Your task to perform on an android device: Open CNN.com Image 0: 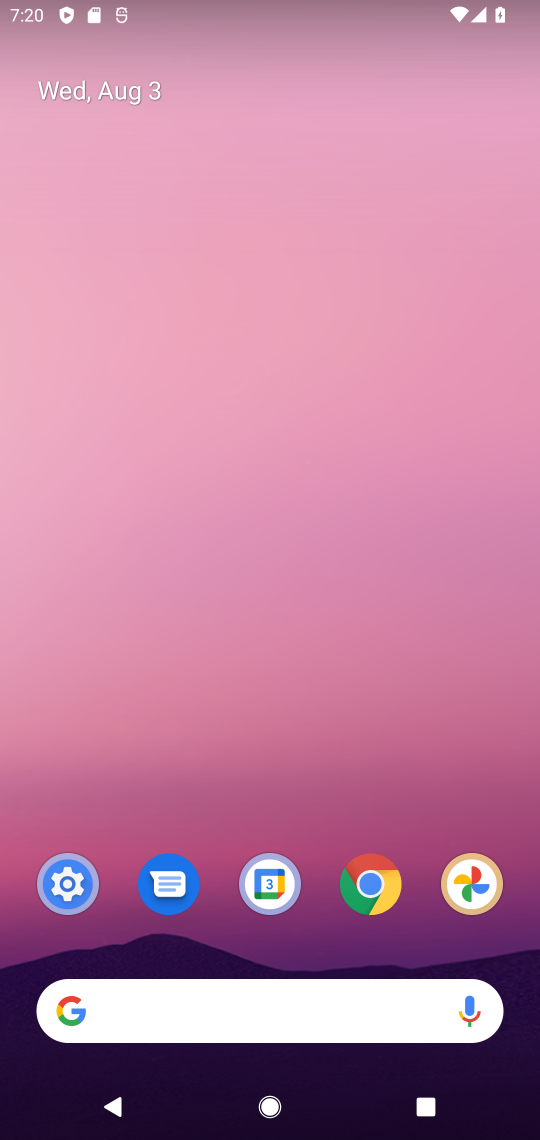
Step 0: drag from (315, 1134) to (405, 768)
Your task to perform on an android device: Open CNN.com Image 1: 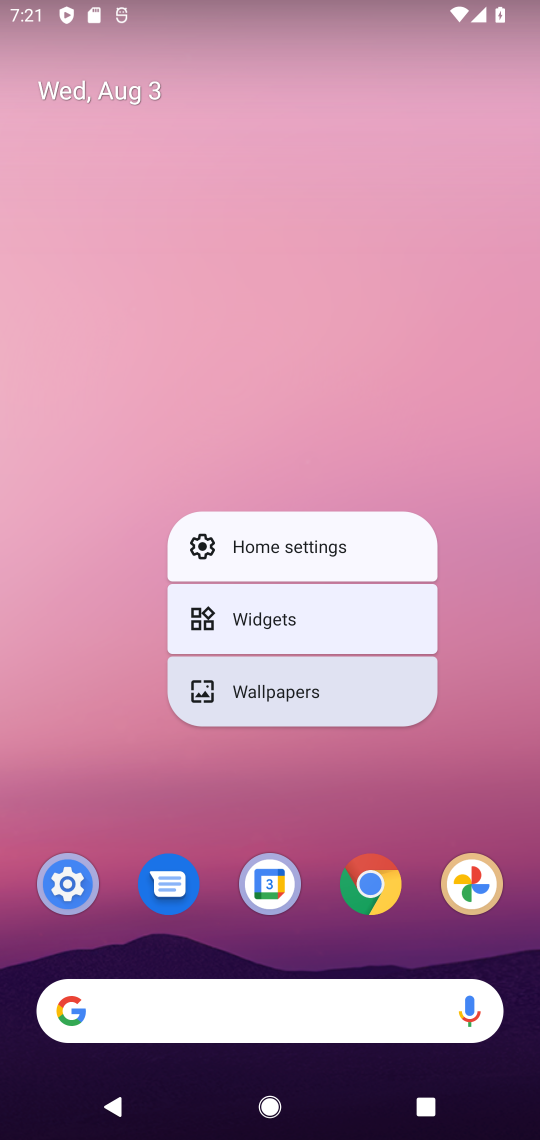
Step 1: click (324, 1012)
Your task to perform on an android device: Open CNN.com Image 2: 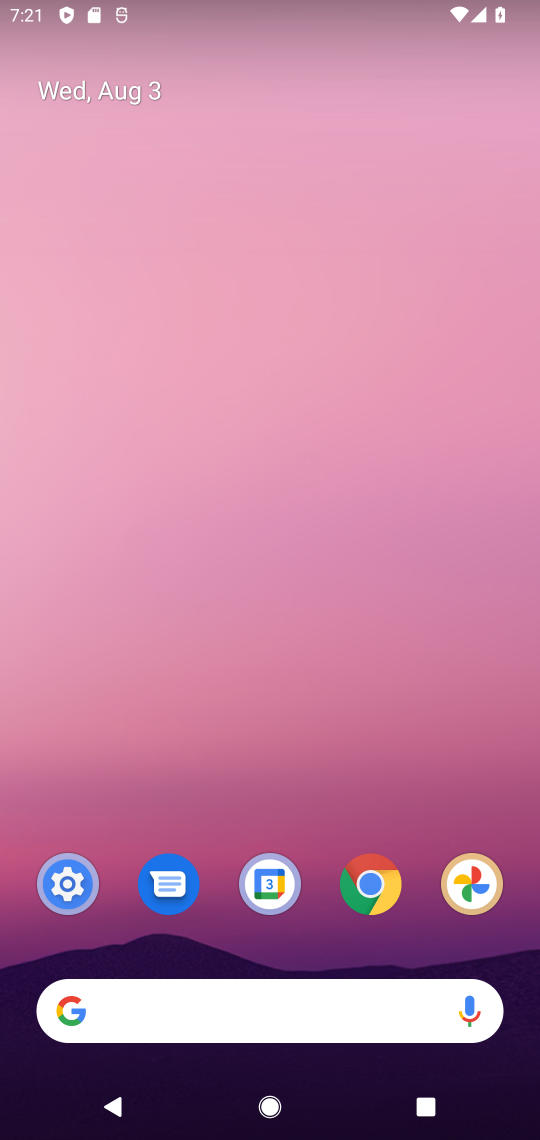
Step 2: click (244, 999)
Your task to perform on an android device: Open CNN.com Image 3: 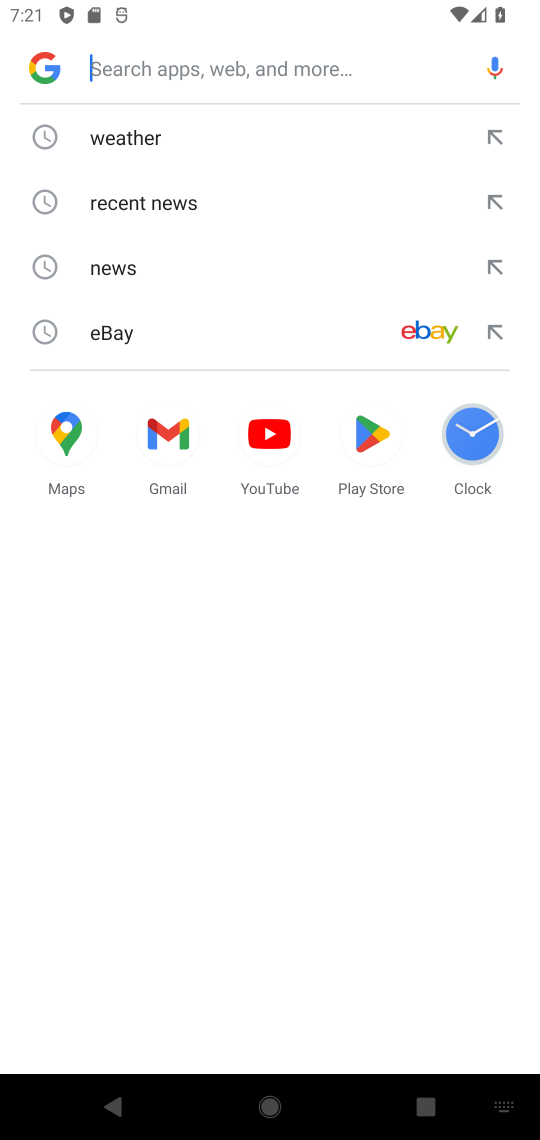
Step 3: press enter
Your task to perform on an android device: Open CNN.com Image 4: 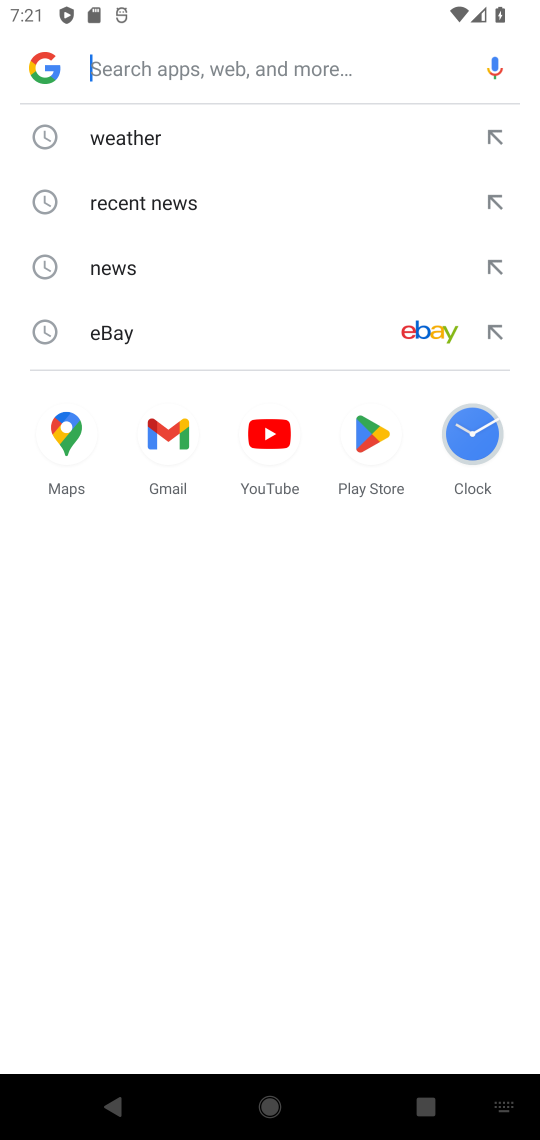
Step 4: type "CNN.com"
Your task to perform on an android device: Open CNN.com Image 5: 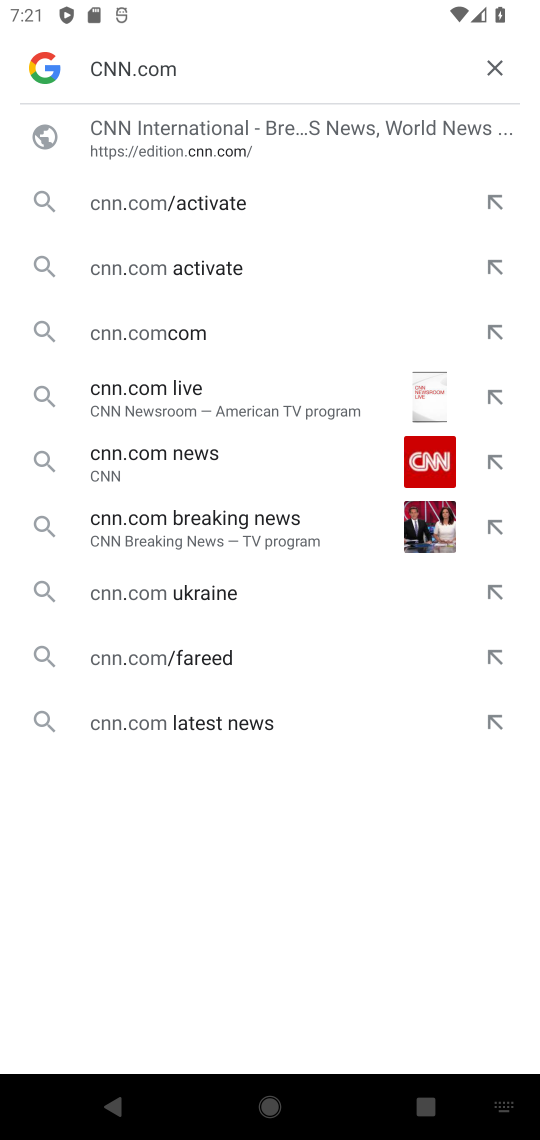
Step 5: press enter
Your task to perform on an android device: Open CNN.com Image 6: 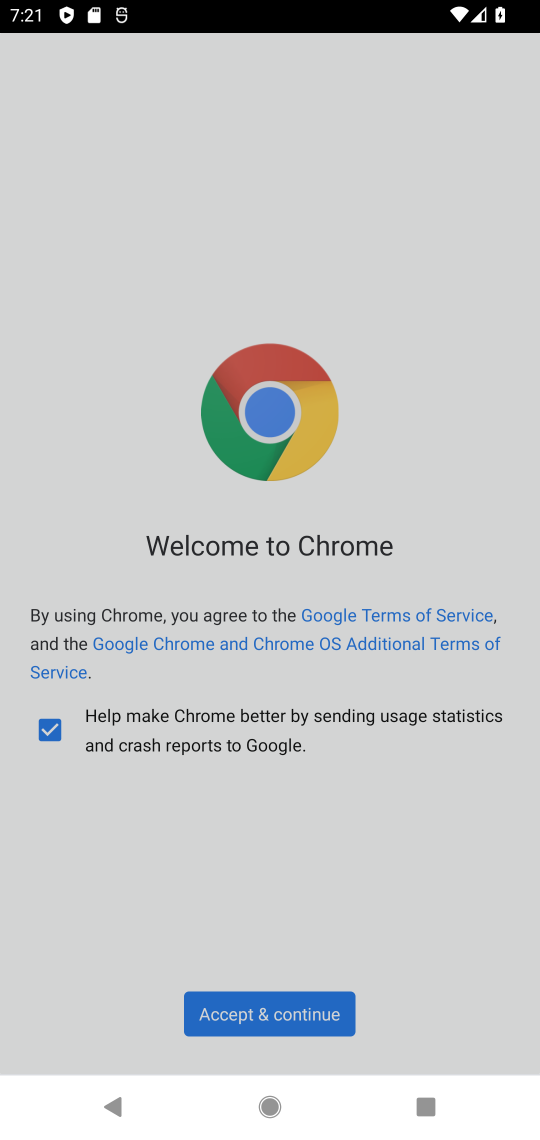
Step 6: click (274, 1019)
Your task to perform on an android device: Open CNN.com Image 7: 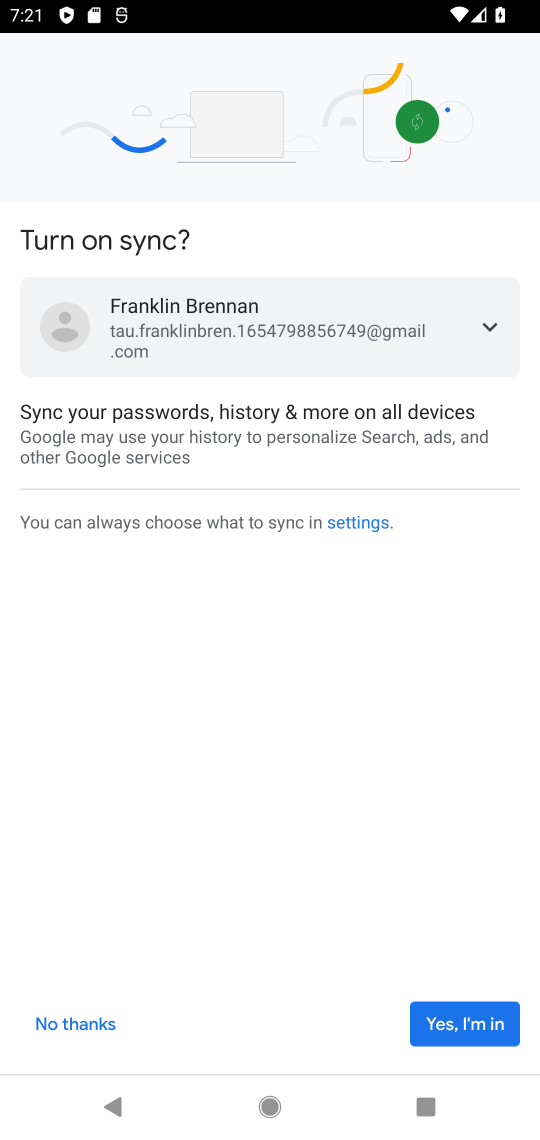
Step 7: click (441, 1025)
Your task to perform on an android device: Open CNN.com Image 8: 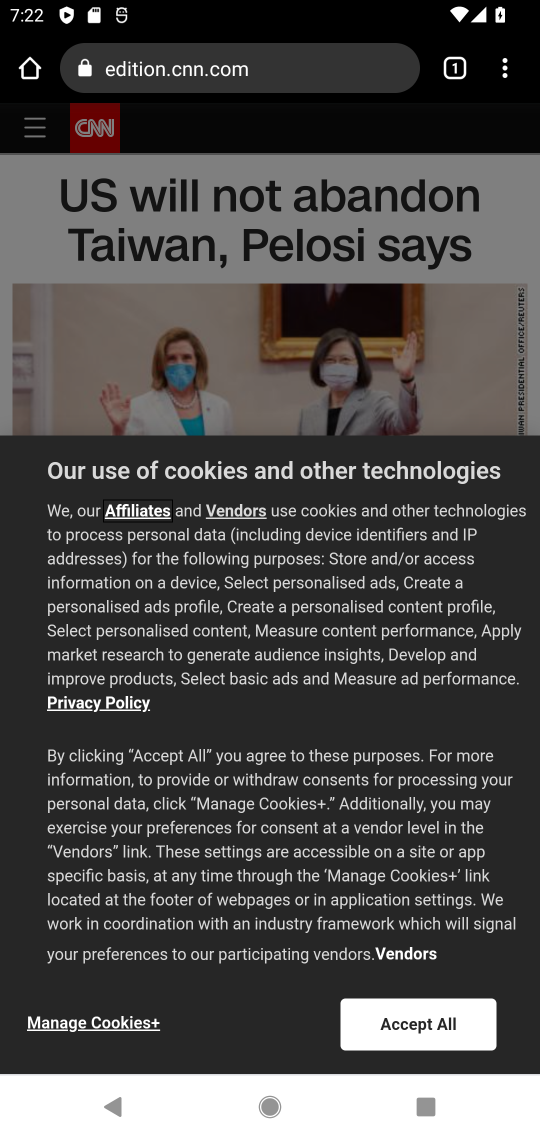
Step 8: task complete